Your task to perform on an android device: empty trash in the gmail app Image 0: 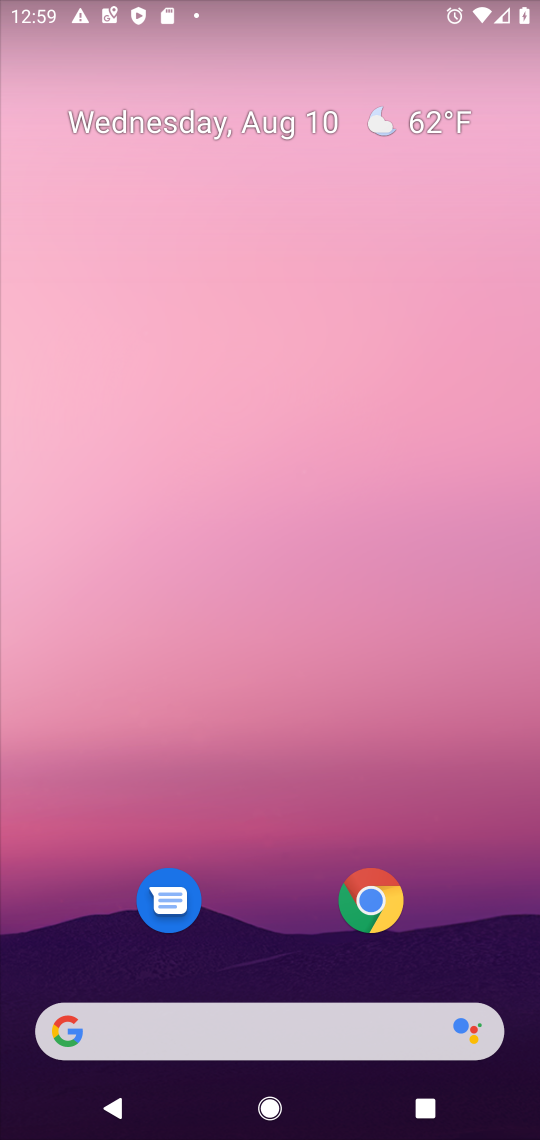
Step 0: drag from (291, 793) to (361, 4)
Your task to perform on an android device: empty trash in the gmail app Image 1: 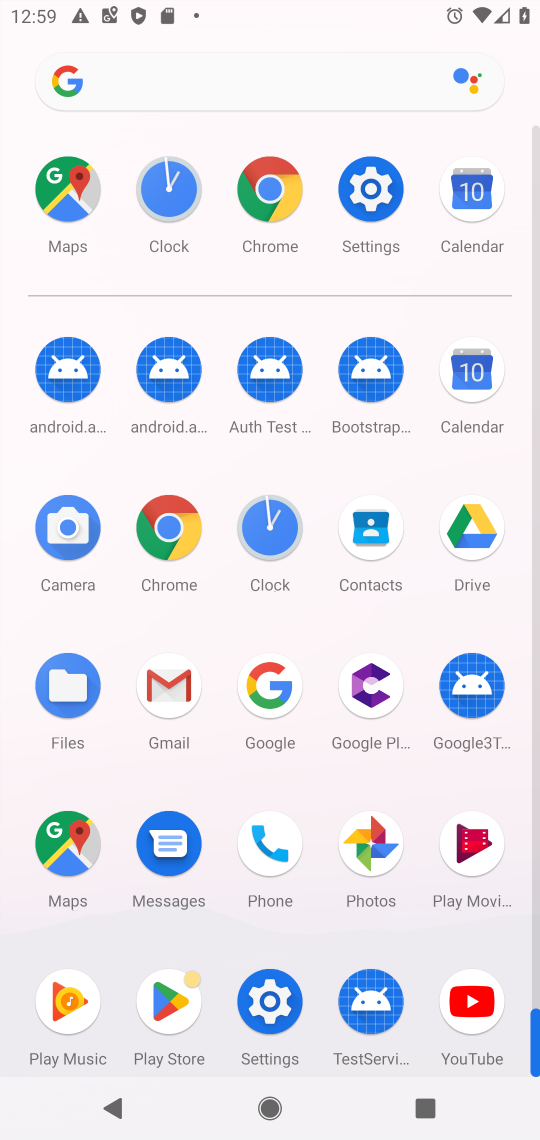
Step 1: click (165, 677)
Your task to perform on an android device: empty trash in the gmail app Image 2: 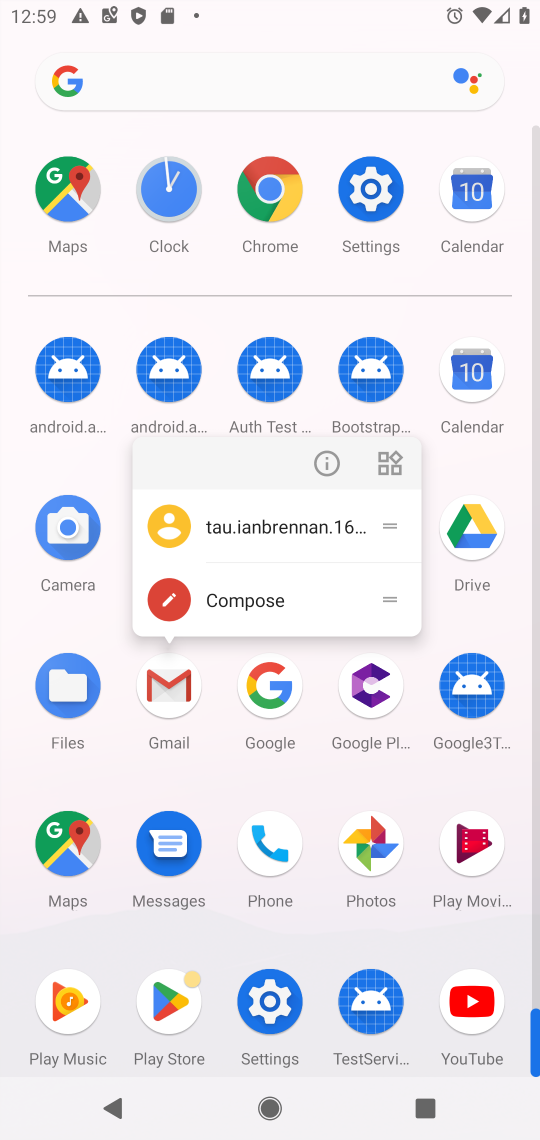
Step 2: click (165, 677)
Your task to perform on an android device: empty trash in the gmail app Image 3: 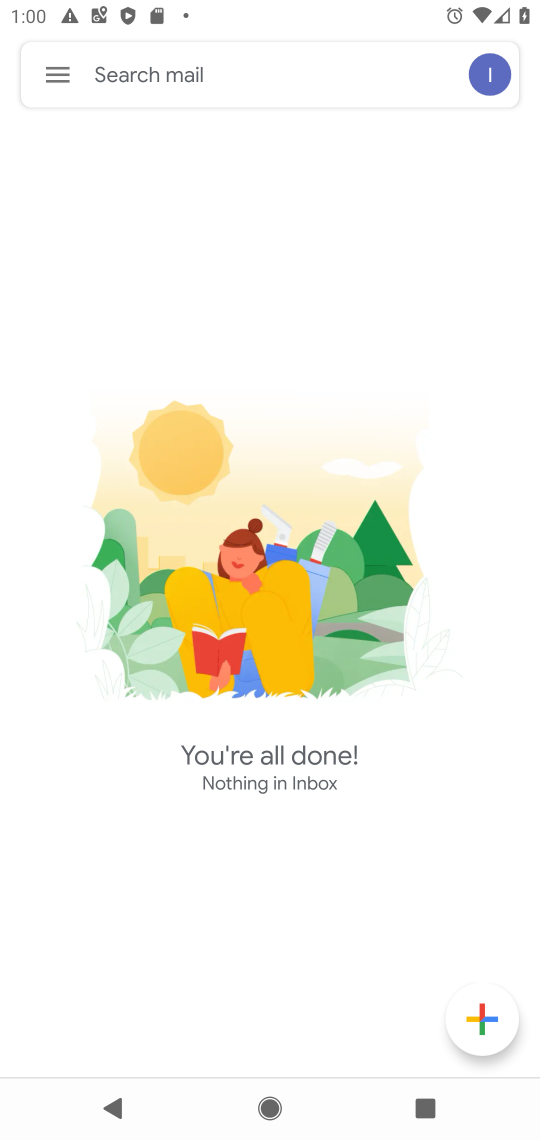
Step 3: click (54, 69)
Your task to perform on an android device: empty trash in the gmail app Image 4: 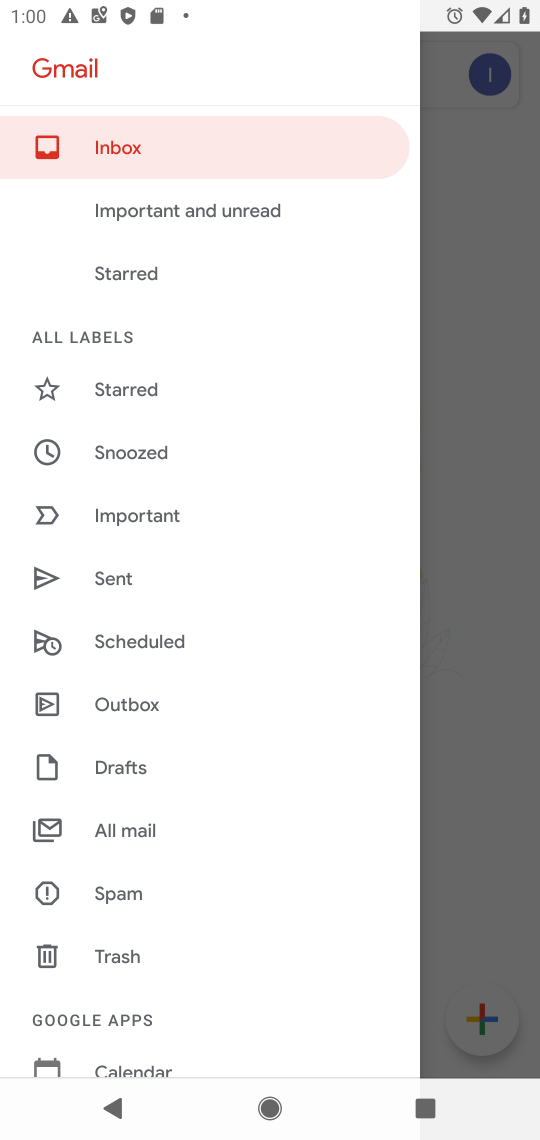
Step 4: click (123, 955)
Your task to perform on an android device: empty trash in the gmail app Image 5: 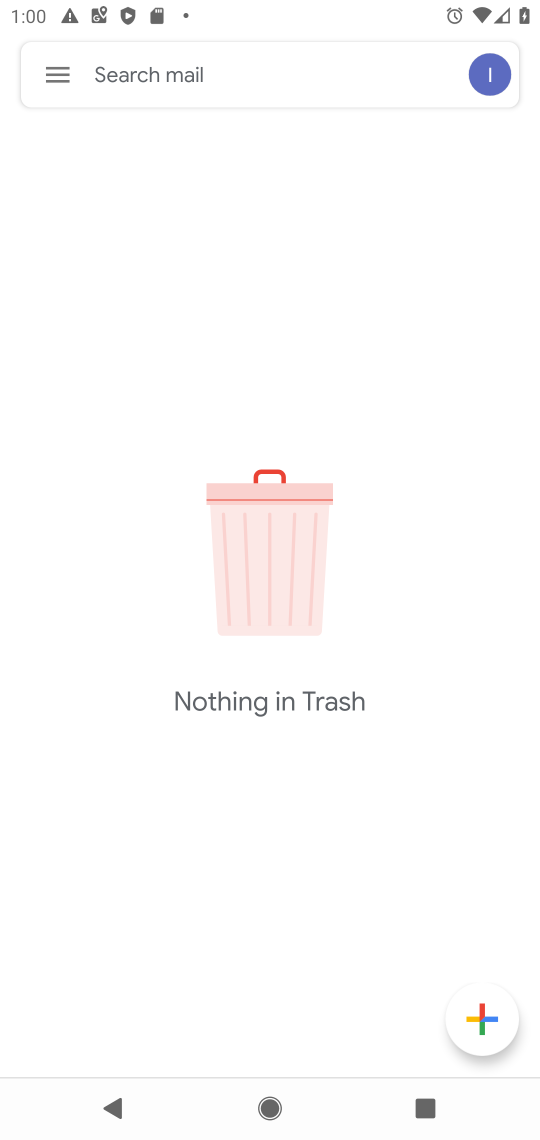
Step 5: task complete